Your task to perform on an android device: Go to sound settings Image 0: 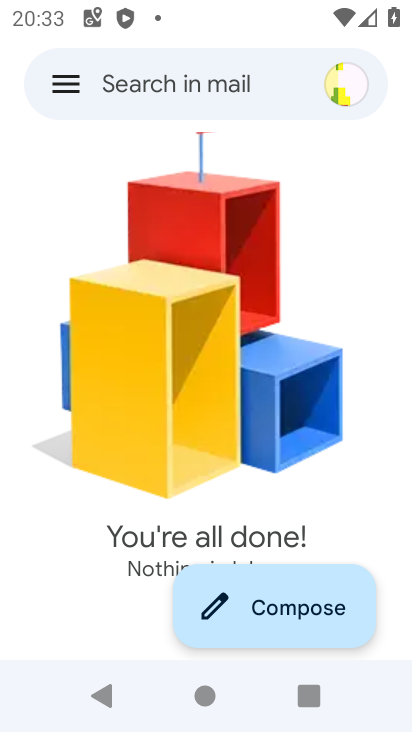
Step 0: press home button
Your task to perform on an android device: Go to sound settings Image 1: 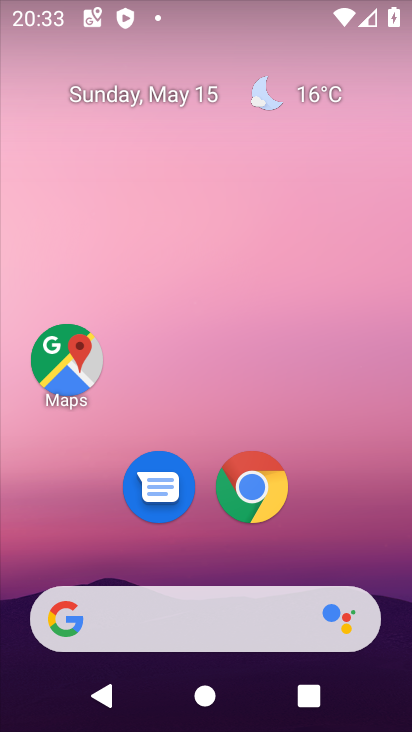
Step 1: drag from (400, 552) to (410, 242)
Your task to perform on an android device: Go to sound settings Image 2: 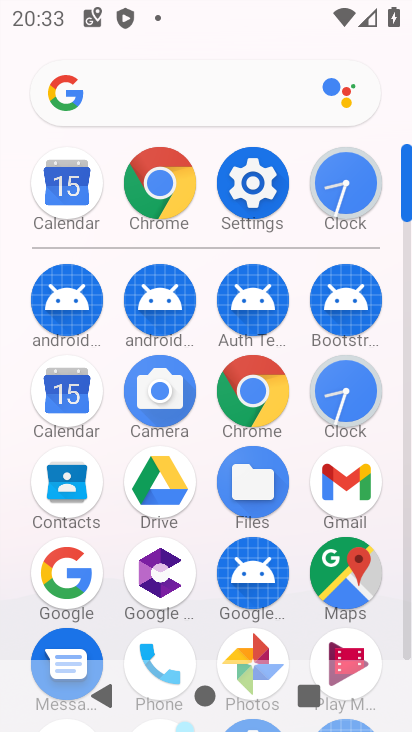
Step 2: click (248, 177)
Your task to perform on an android device: Go to sound settings Image 3: 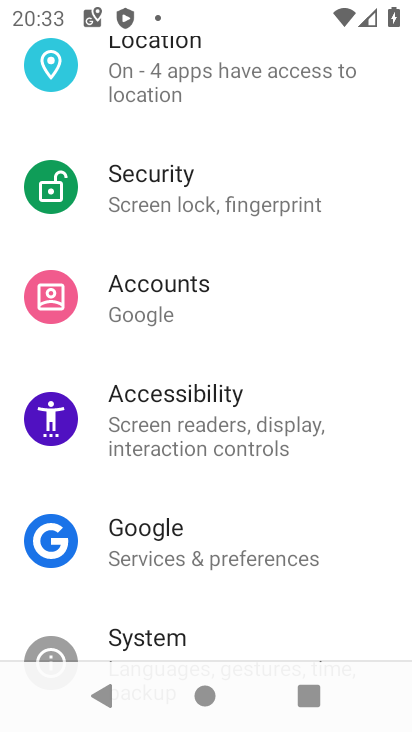
Step 3: drag from (342, 123) to (376, 530)
Your task to perform on an android device: Go to sound settings Image 4: 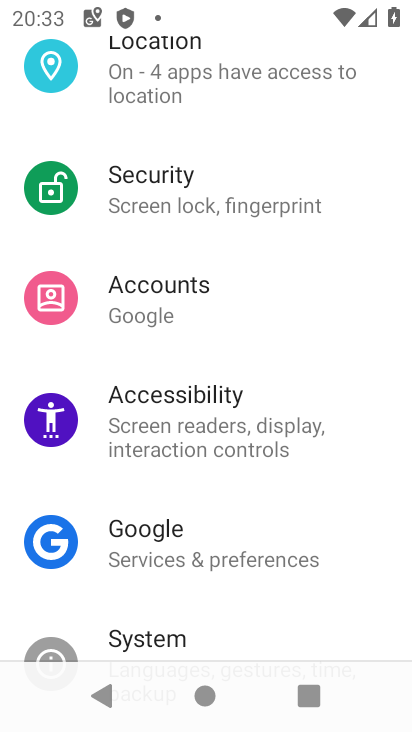
Step 4: drag from (347, 156) to (325, 501)
Your task to perform on an android device: Go to sound settings Image 5: 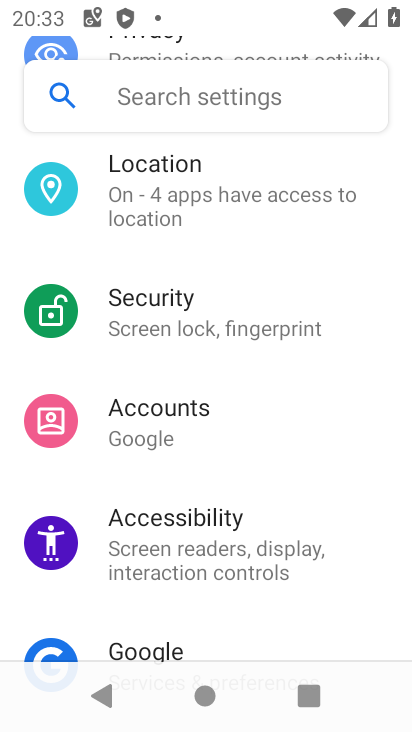
Step 5: drag from (348, 160) to (363, 619)
Your task to perform on an android device: Go to sound settings Image 6: 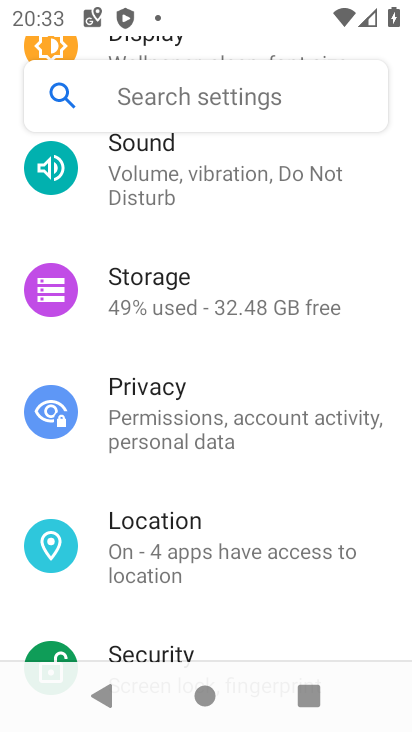
Step 6: click (151, 165)
Your task to perform on an android device: Go to sound settings Image 7: 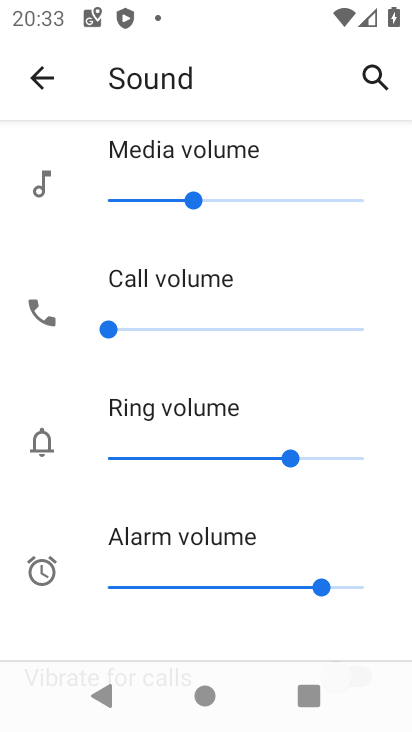
Step 7: task complete